Your task to perform on an android device: see sites visited before in the chrome app Image 0: 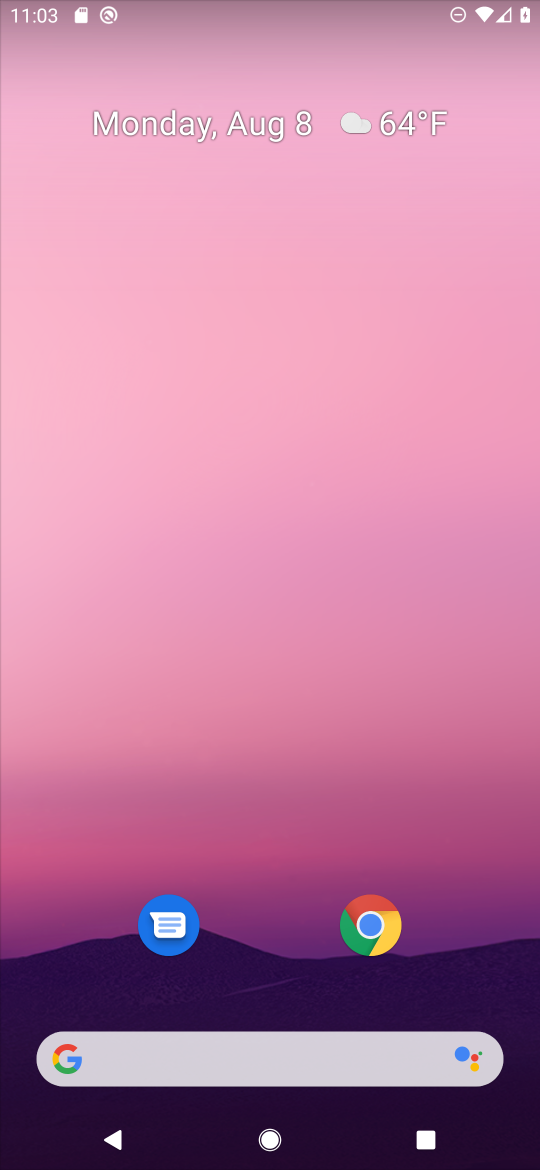
Step 0: drag from (228, 850) to (236, 117)
Your task to perform on an android device: see sites visited before in the chrome app Image 1: 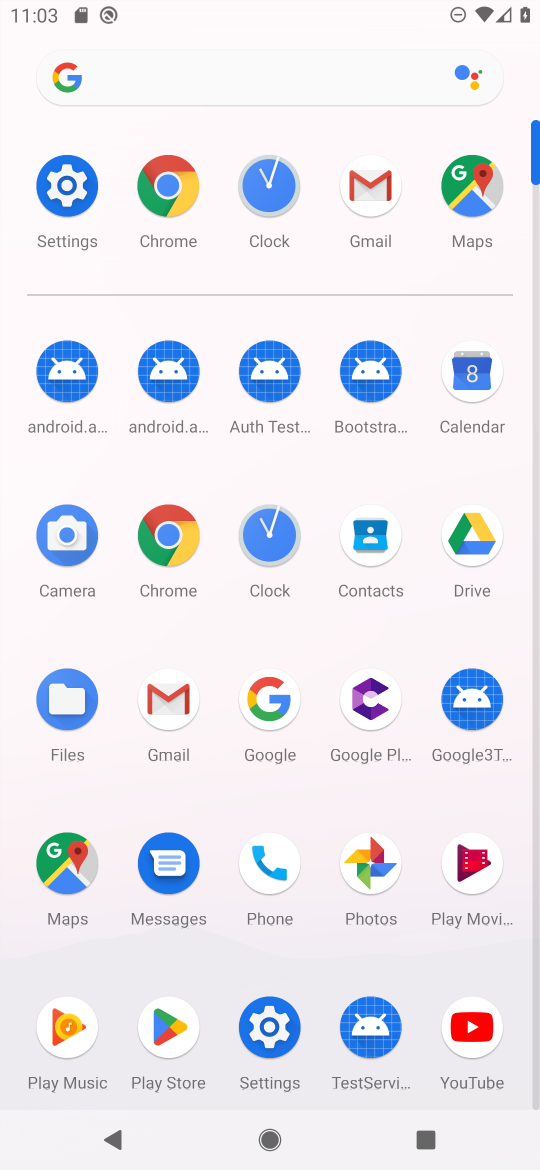
Step 1: click (171, 526)
Your task to perform on an android device: see sites visited before in the chrome app Image 2: 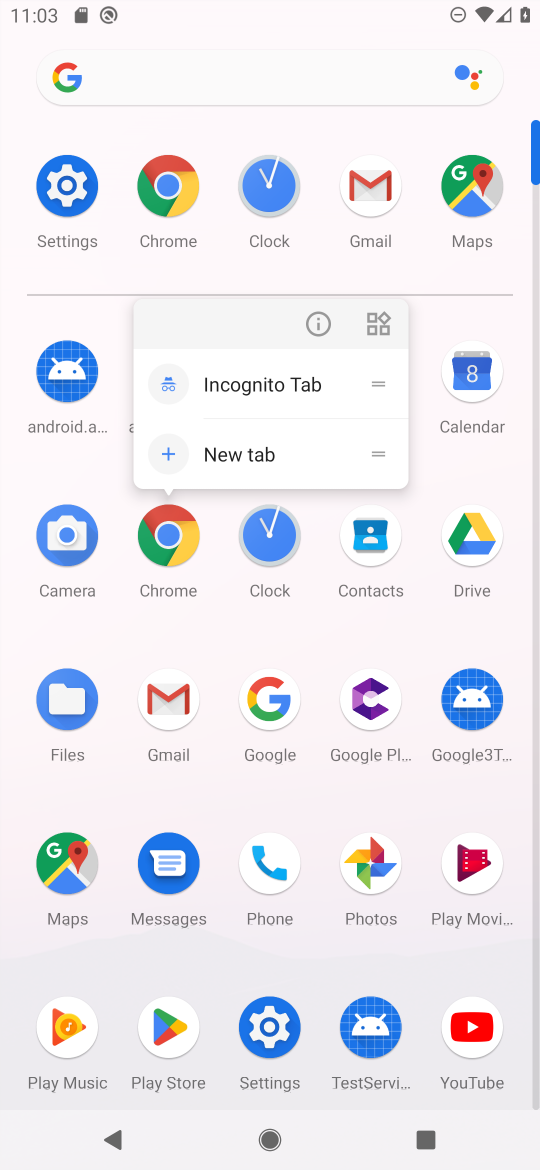
Step 2: click (164, 530)
Your task to perform on an android device: see sites visited before in the chrome app Image 3: 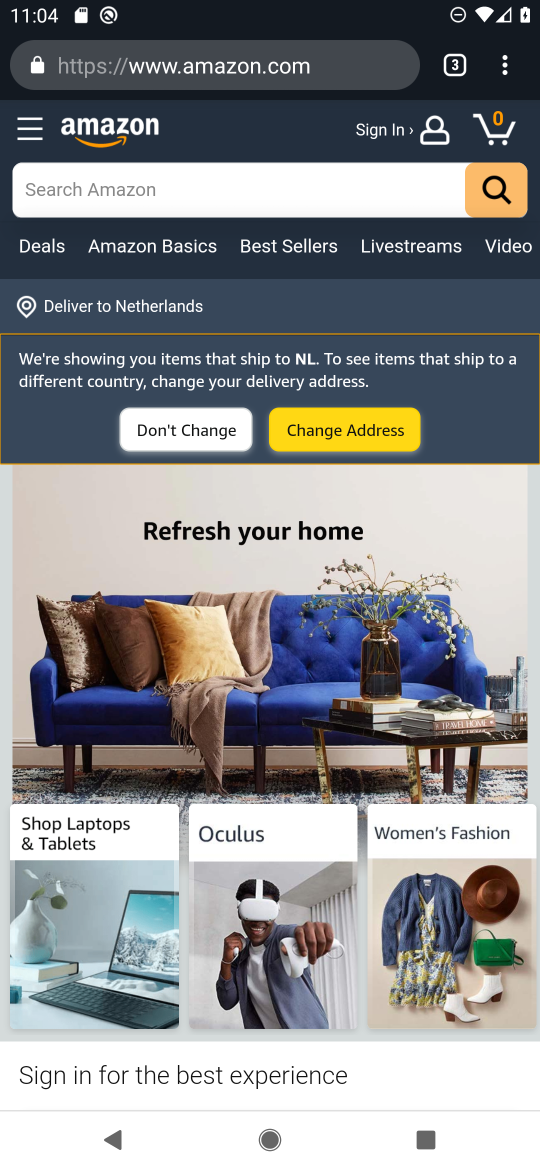
Step 3: task complete